Your task to perform on an android device: refresh tabs in the chrome app Image 0: 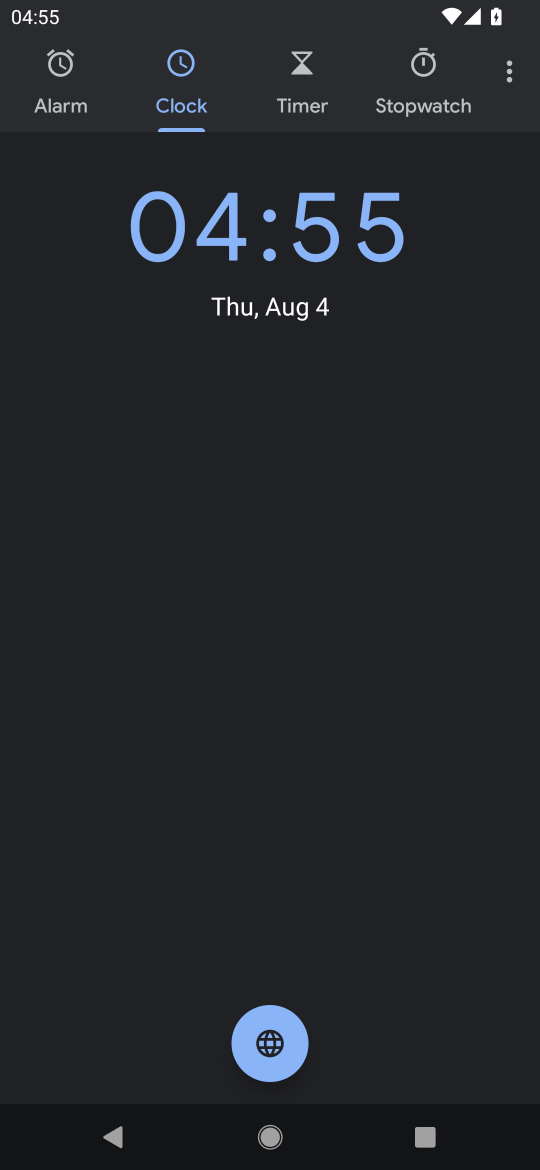
Step 0: press home button
Your task to perform on an android device: refresh tabs in the chrome app Image 1: 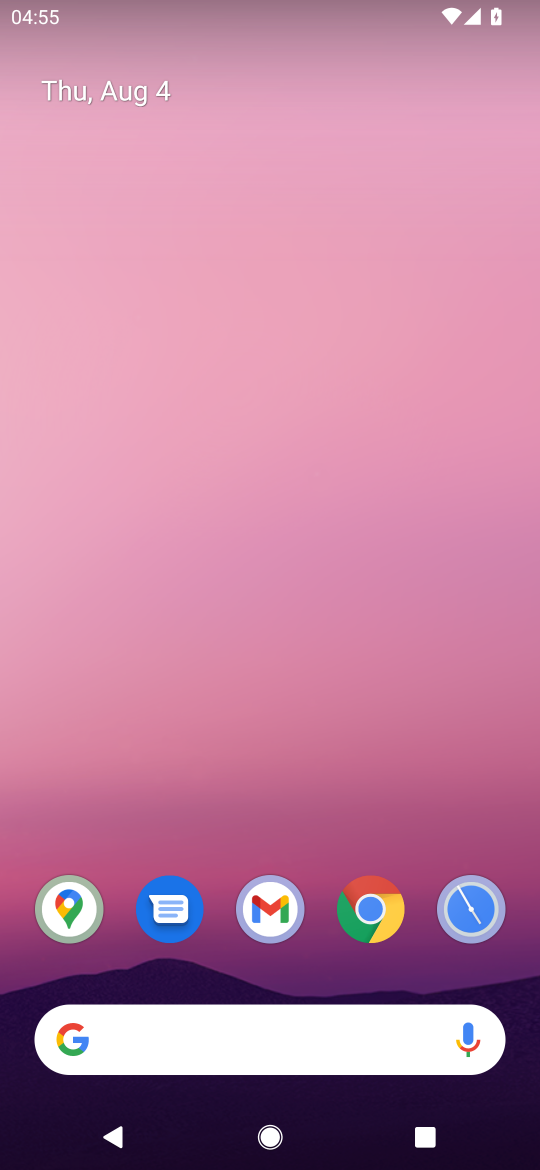
Step 1: click (375, 890)
Your task to perform on an android device: refresh tabs in the chrome app Image 2: 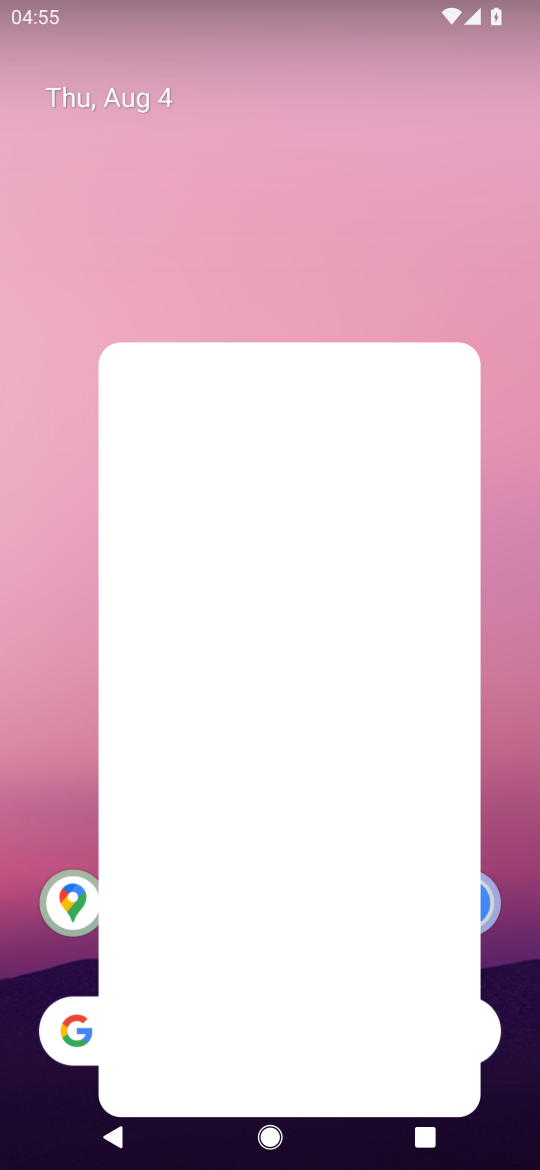
Step 2: click (379, 918)
Your task to perform on an android device: refresh tabs in the chrome app Image 3: 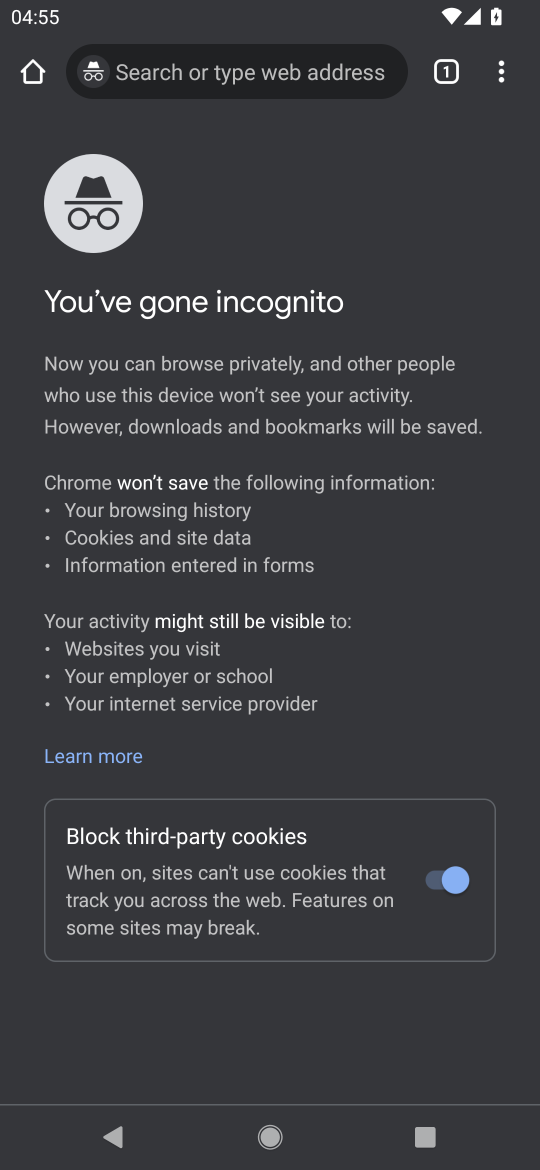
Step 3: click (497, 77)
Your task to perform on an android device: refresh tabs in the chrome app Image 4: 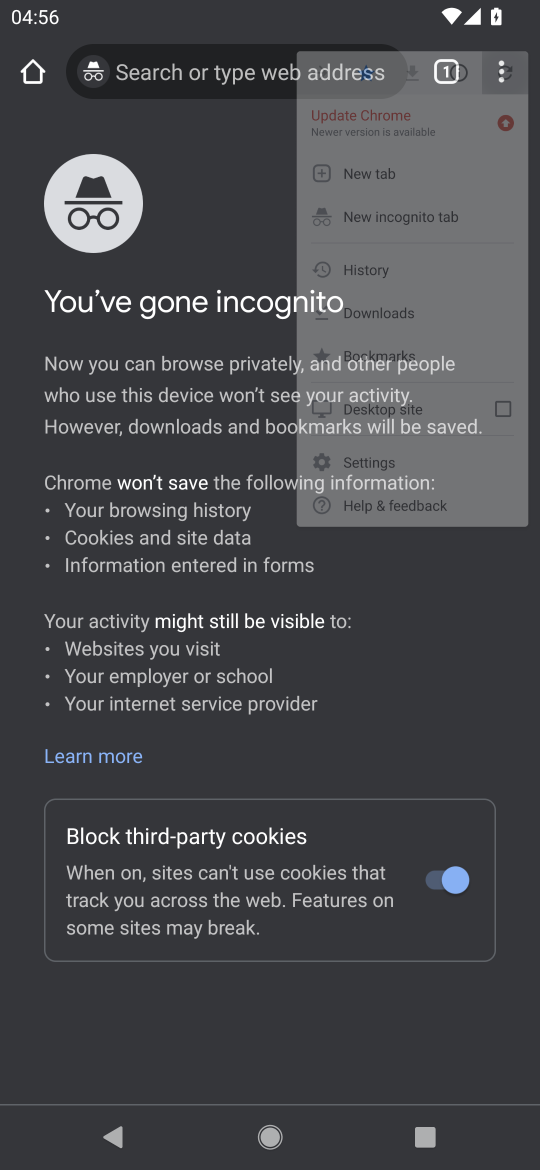
Step 4: click (498, 72)
Your task to perform on an android device: refresh tabs in the chrome app Image 5: 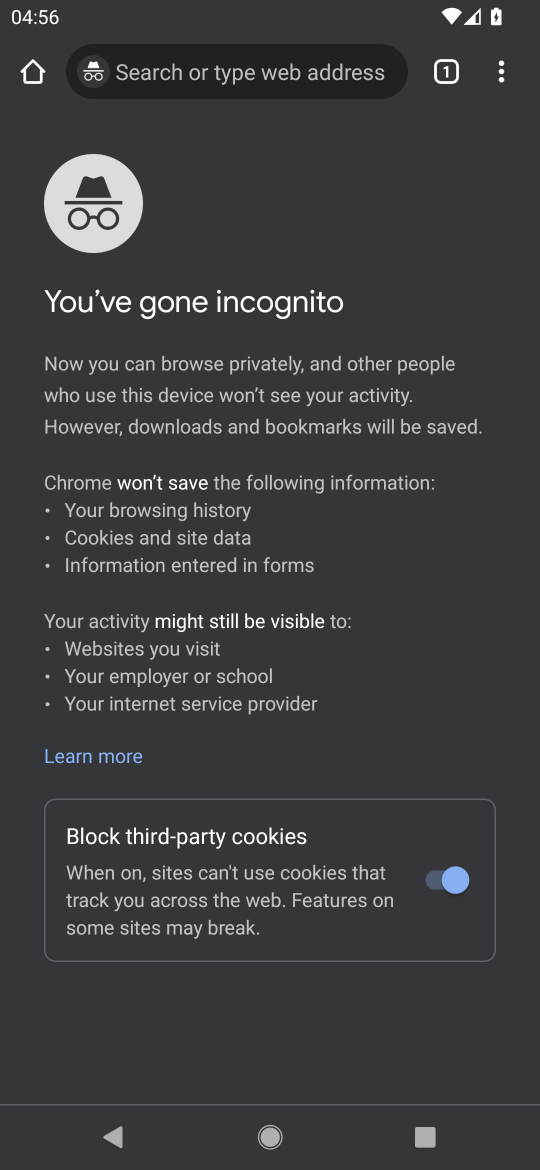
Step 5: click (505, 79)
Your task to perform on an android device: refresh tabs in the chrome app Image 6: 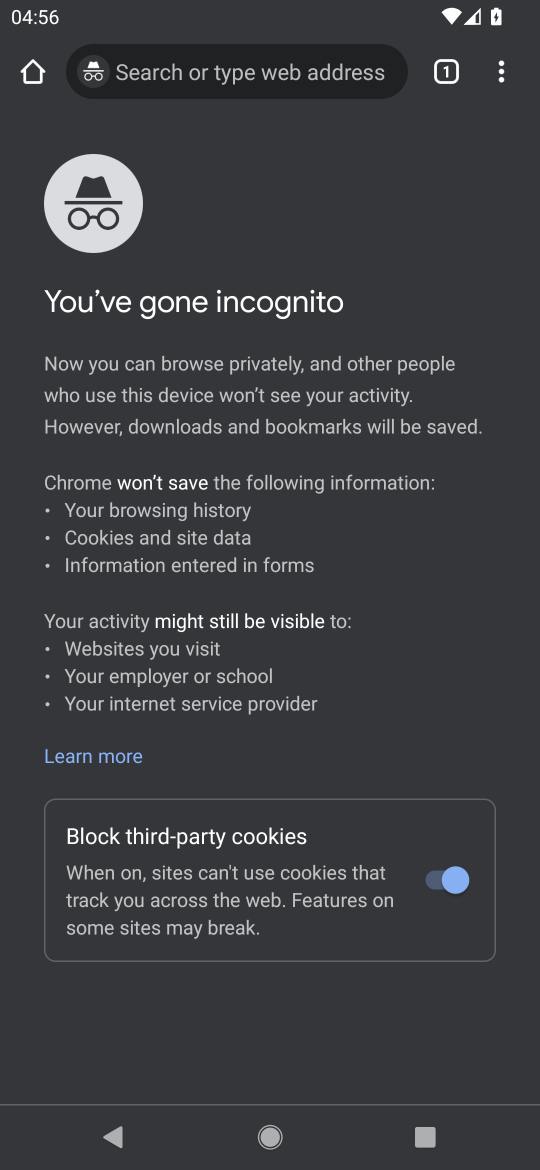
Step 6: click (506, 75)
Your task to perform on an android device: refresh tabs in the chrome app Image 7: 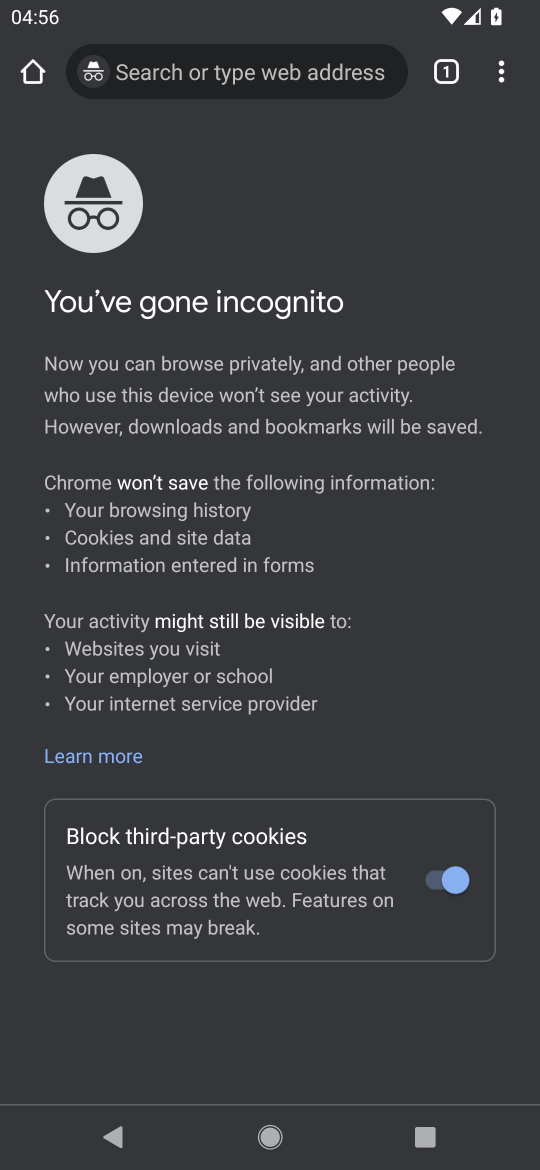
Step 7: task complete